Your task to perform on an android device: turn off location Image 0: 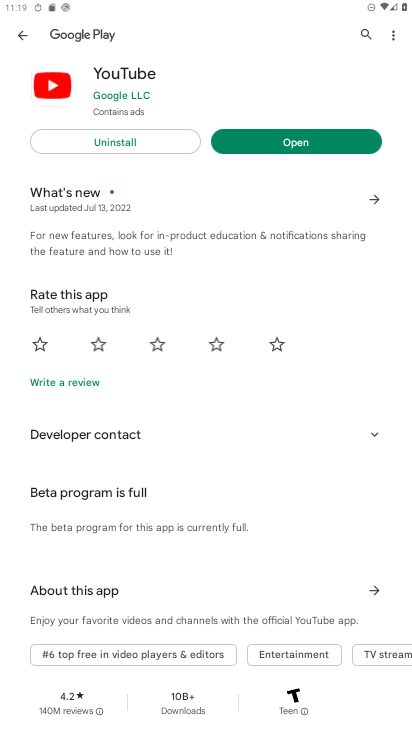
Step 0: press home button
Your task to perform on an android device: turn off location Image 1: 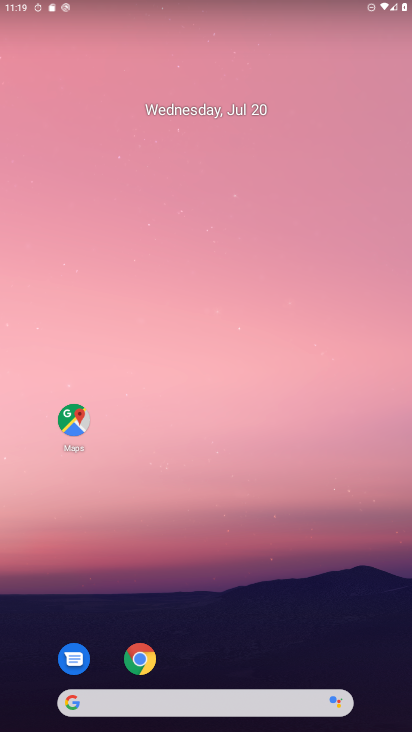
Step 1: drag from (298, 595) to (217, 34)
Your task to perform on an android device: turn off location Image 2: 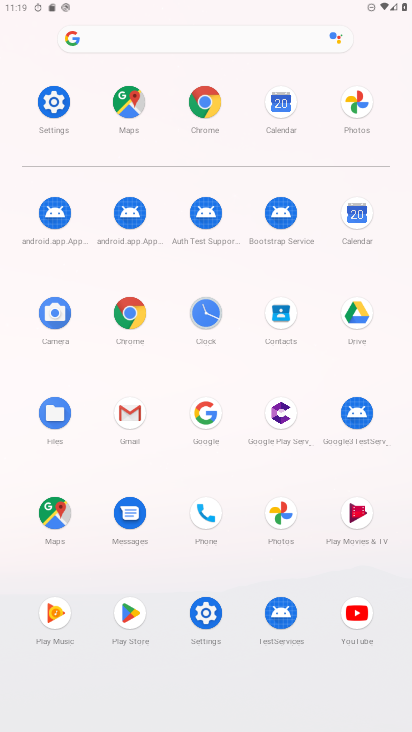
Step 2: click (55, 106)
Your task to perform on an android device: turn off location Image 3: 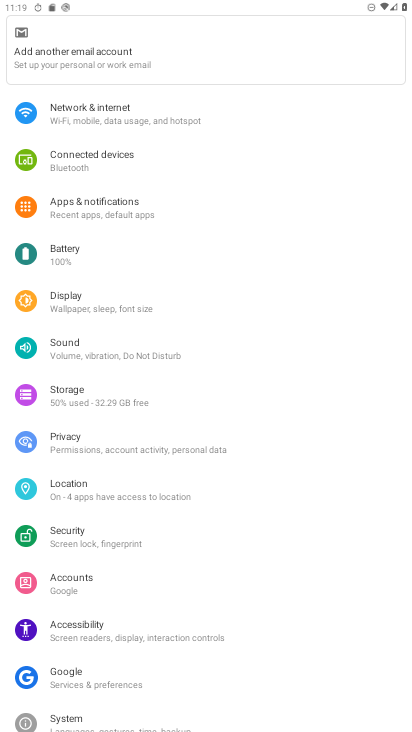
Step 3: click (114, 497)
Your task to perform on an android device: turn off location Image 4: 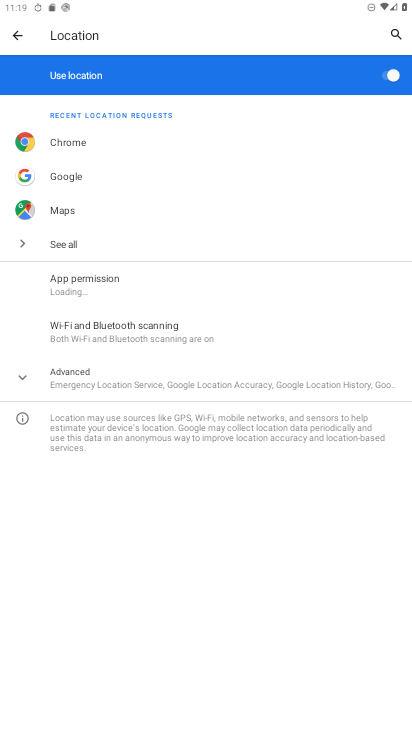
Step 4: click (395, 76)
Your task to perform on an android device: turn off location Image 5: 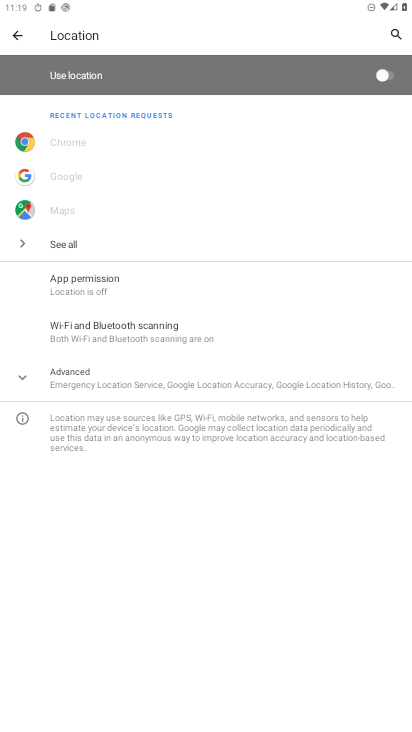
Step 5: task complete